Your task to perform on an android device: turn pop-ups on in chrome Image 0: 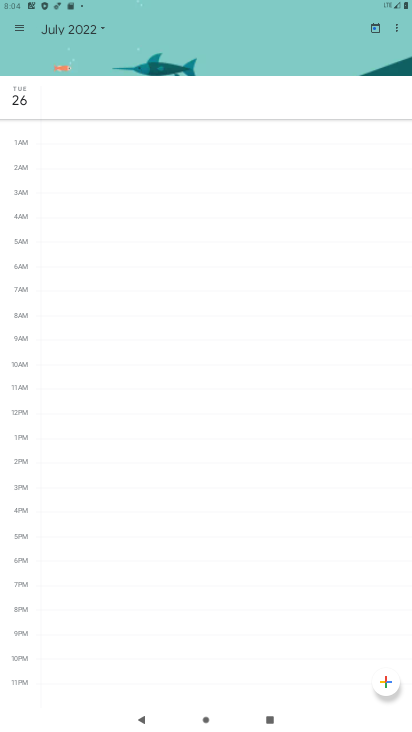
Step 0: press home button
Your task to perform on an android device: turn pop-ups on in chrome Image 1: 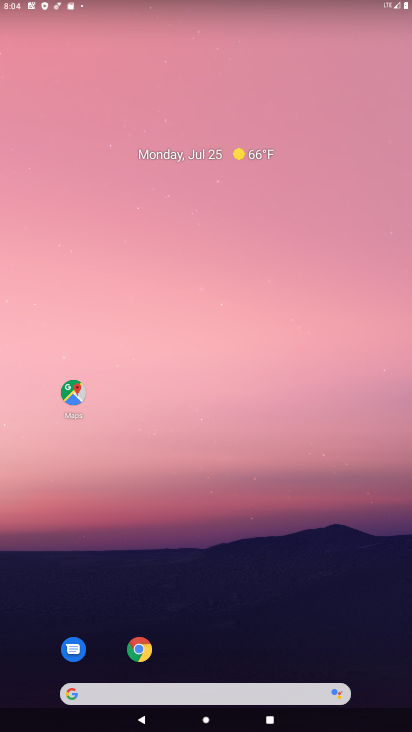
Step 1: click (144, 655)
Your task to perform on an android device: turn pop-ups on in chrome Image 2: 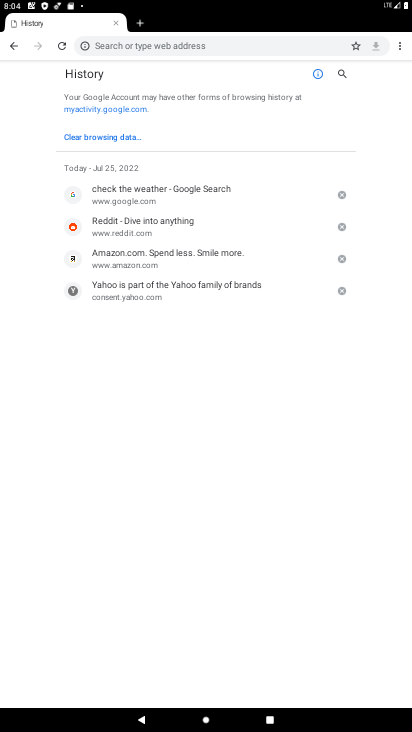
Step 2: click (398, 45)
Your task to perform on an android device: turn pop-ups on in chrome Image 3: 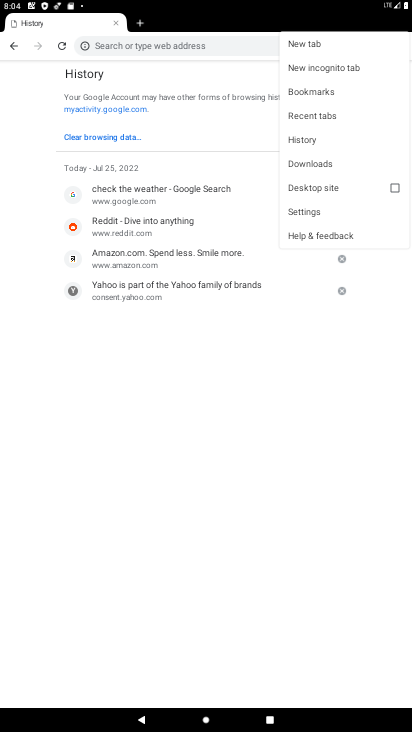
Step 3: click (330, 212)
Your task to perform on an android device: turn pop-ups on in chrome Image 4: 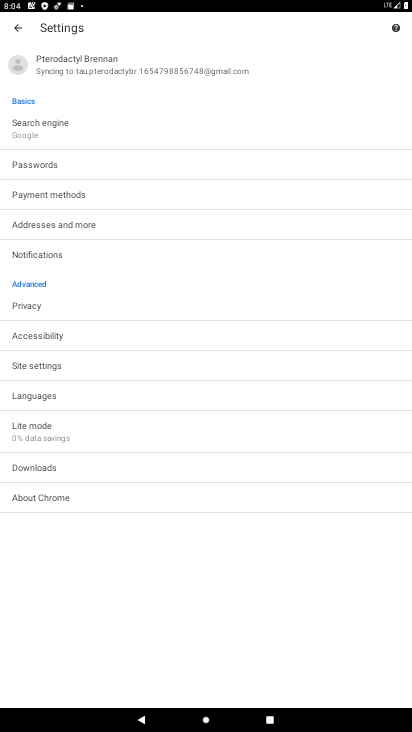
Step 4: click (102, 373)
Your task to perform on an android device: turn pop-ups on in chrome Image 5: 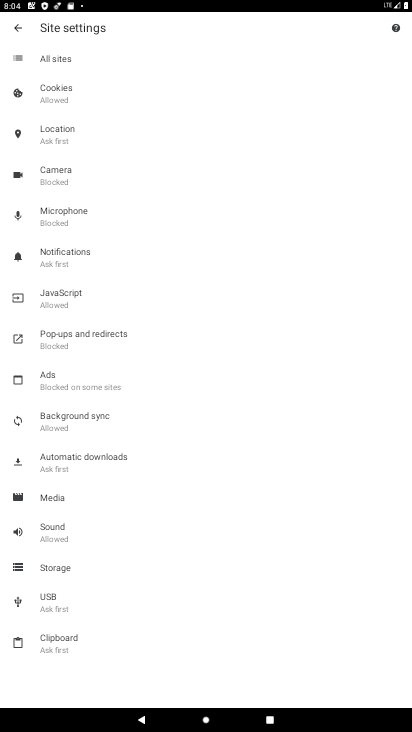
Step 5: click (141, 346)
Your task to perform on an android device: turn pop-ups on in chrome Image 6: 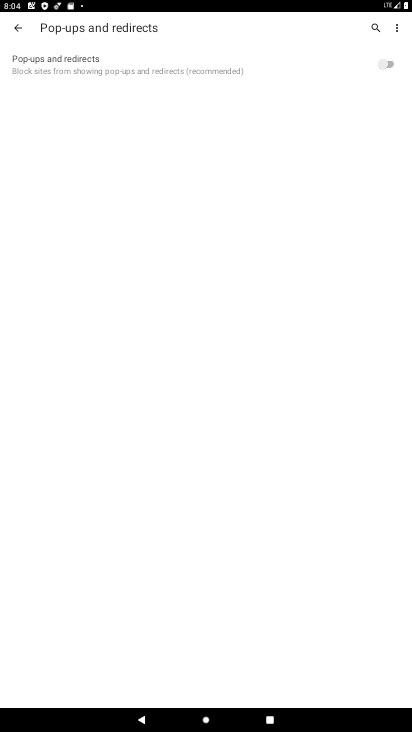
Step 6: click (387, 62)
Your task to perform on an android device: turn pop-ups on in chrome Image 7: 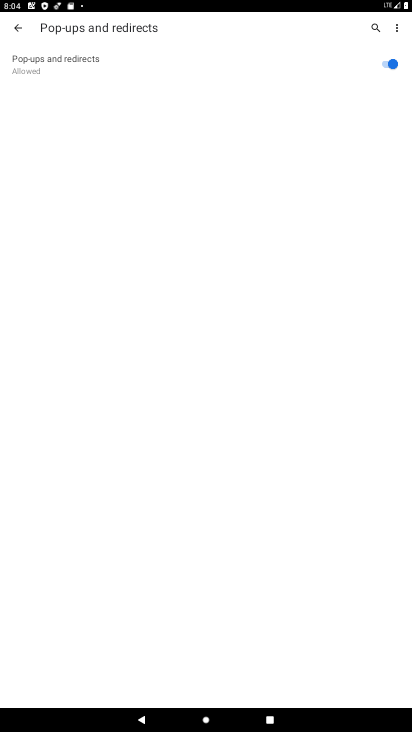
Step 7: task complete